Your task to perform on an android device: turn smart compose on in the gmail app Image 0: 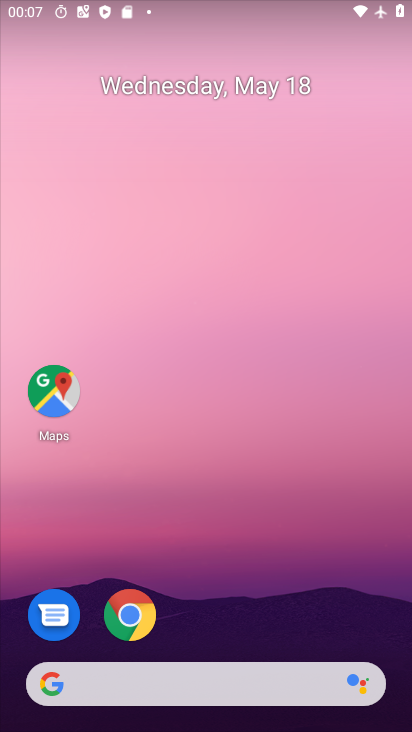
Step 0: drag from (233, 590) to (238, 242)
Your task to perform on an android device: turn smart compose on in the gmail app Image 1: 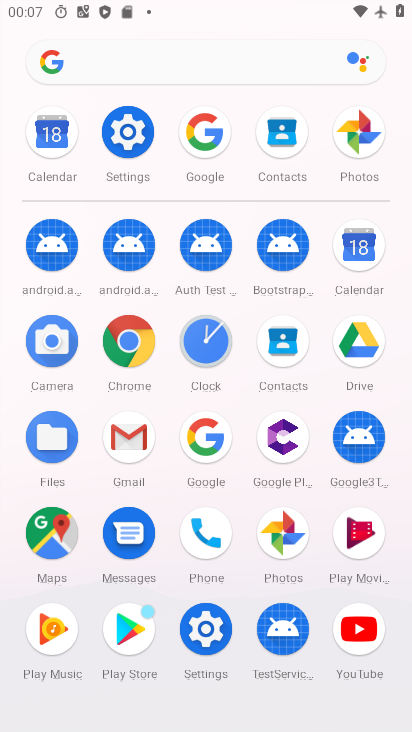
Step 1: click (134, 432)
Your task to perform on an android device: turn smart compose on in the gmail app Image 2: 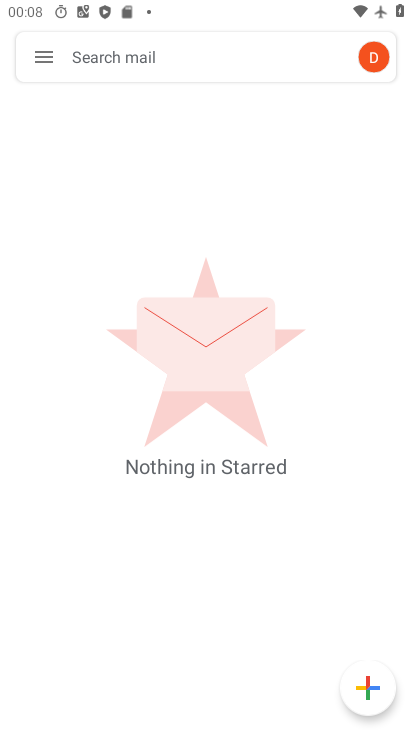
Step 2: click (40, 53)
Your task to perform on an android device: turn smart compose on in the gmail app Image 3: 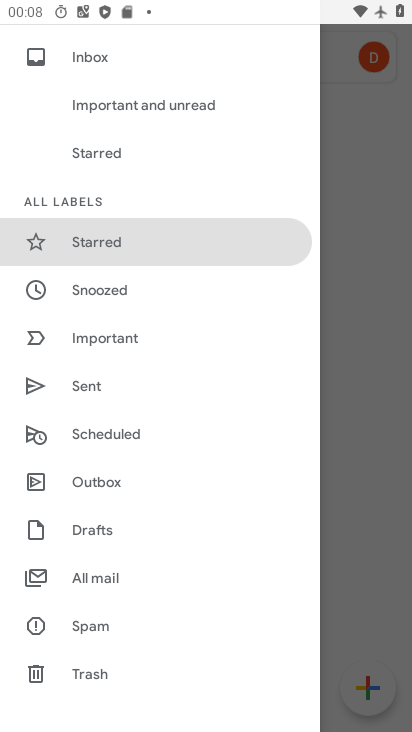
Step 3: drag from (163, 587) to (213, 275)
Your task to perform on an android device: turn smart compose on in the gmail app Image 4: 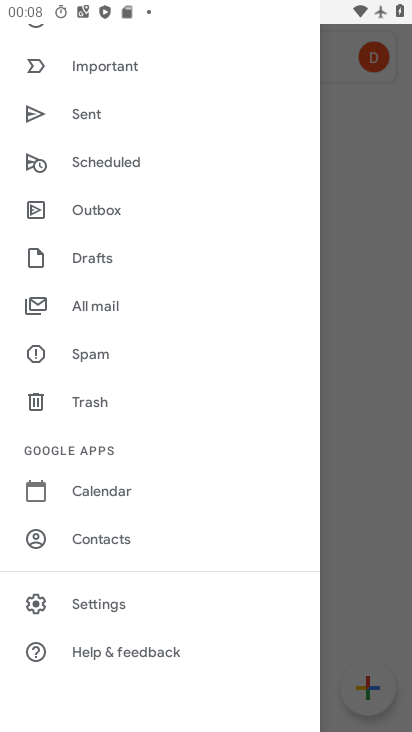
Step 4: drag from (165, 644) to (238, 312)
Your task to perform on an android device: turn smart compose on in the gmail app Image 5: 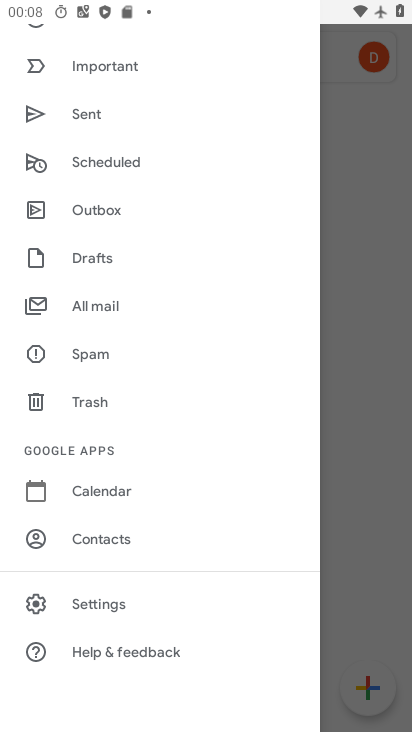
Step 5: click (115, 594)
Your task to perform on an android device: turn smart compose on in the gmail app Image 6: 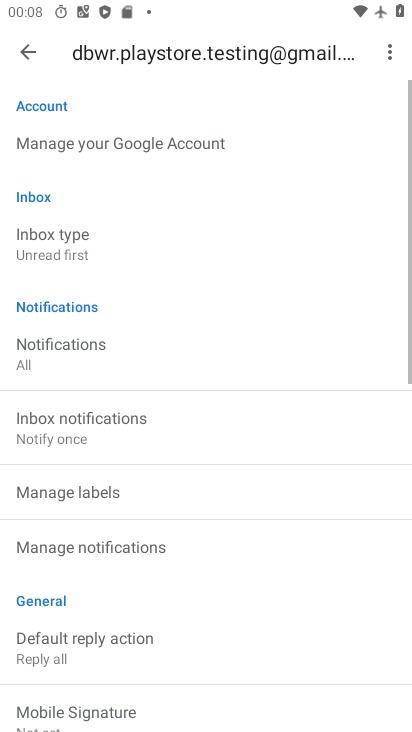
Step 6: task complete